Your task to perform on an android device: check data usage Image 0: 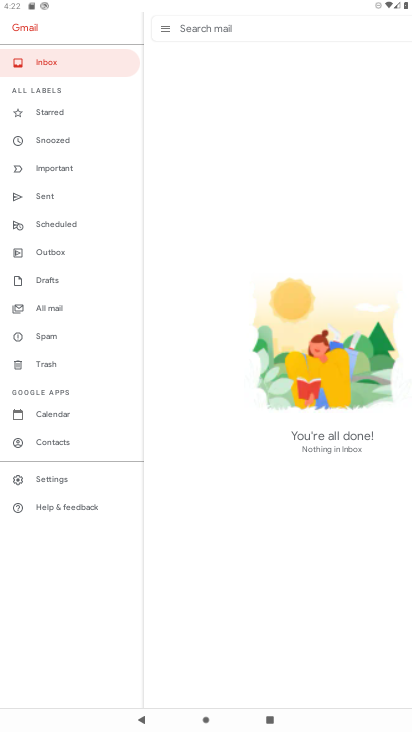
Step 0: drag from (351, 4) to (352, 494)
Your task to perform on an android device: check data usage Image 1: 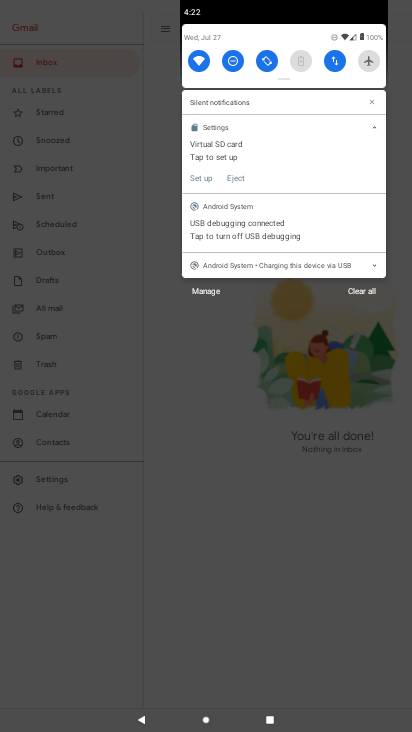
Step 1: click (331, 60)
Your task to perform on an android device: check data usage Image 2: 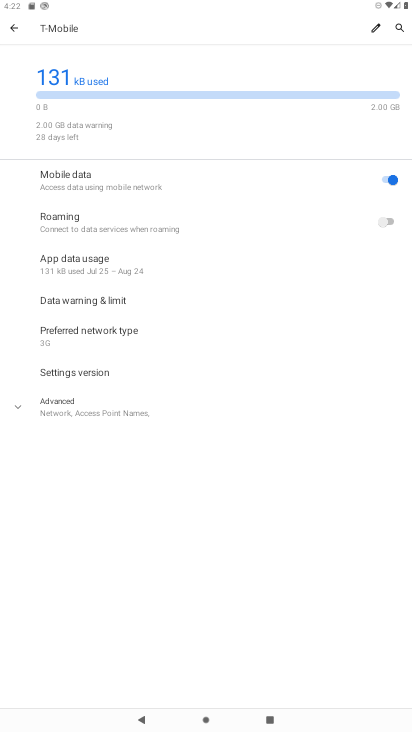
Step 2: task complete